Your task to perform on an android device: find photos in the google photos app Image 0: 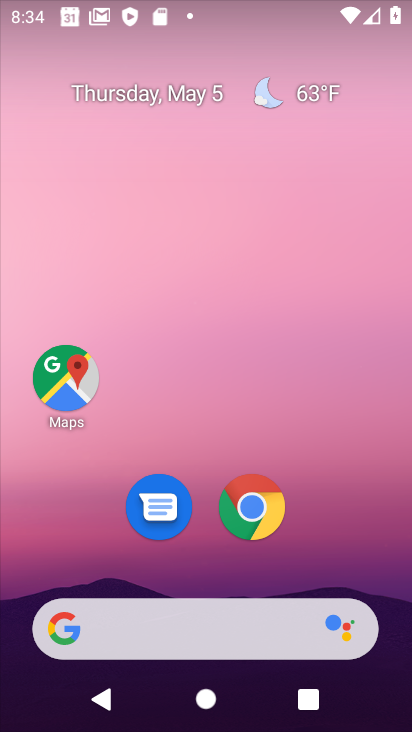
Step 0: drag from (345, 555) to (285, 16)
Your task to perform on an android device: find photos in the google photos app Image 1: 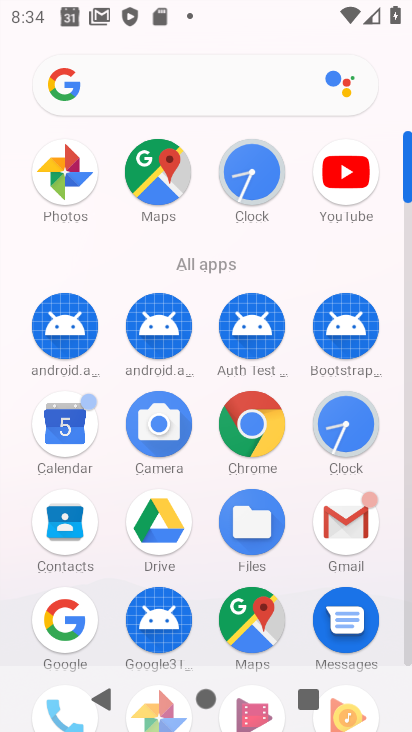
Step 1: drag from (187, 264) to (175, 112)
Your task to perform on an android device: find photos in the google photos app Image 2: 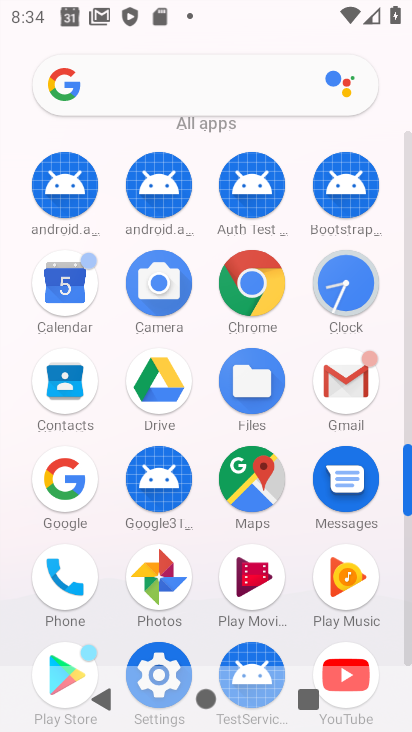
Step 2: click (169, 571)
Your task to perform on an android device: find photos in the google photos app Image 3: 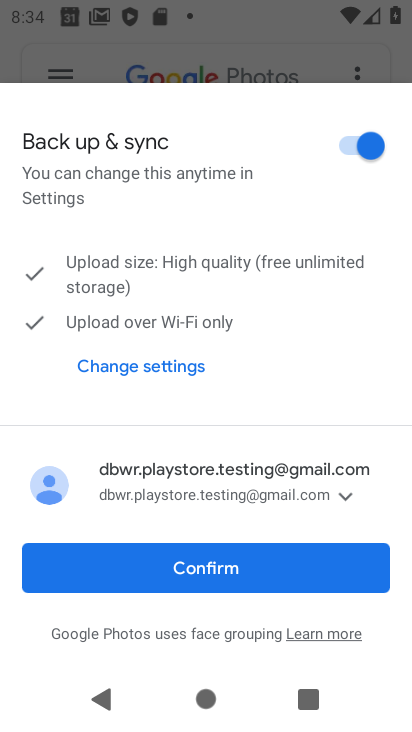
Step 3: click (163, 556)
Your task to perform on an android device: find photos in the google photos app Image 4: 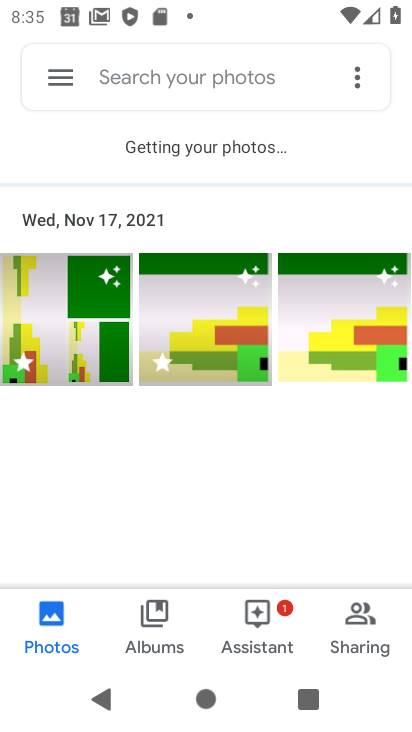
Step 4: click (53, 609)
Your task to perform on an android device: find photos in the google photos app Image 5: 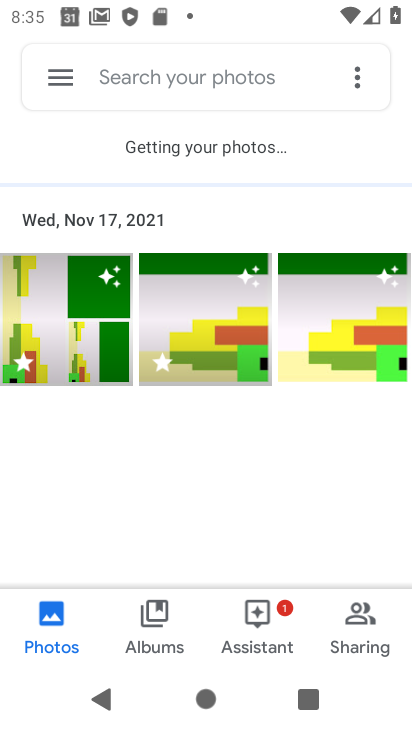
Step 5: task complete